Your task to perform on an android device: Open Wikipedia Image 0: 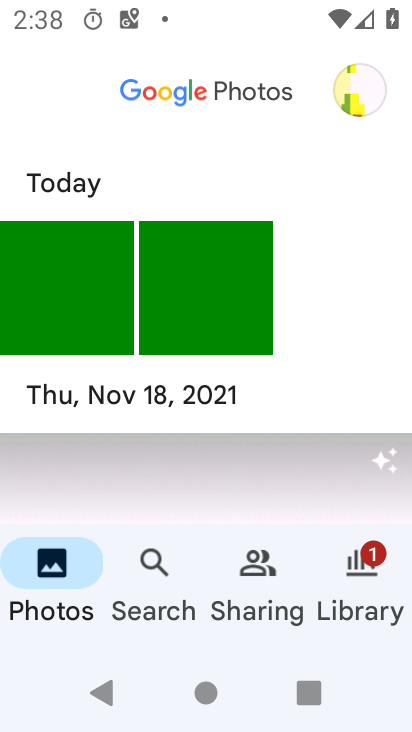
Step 0: press home button
Your task to perform on an android device: Open Wikipedia Image 1: 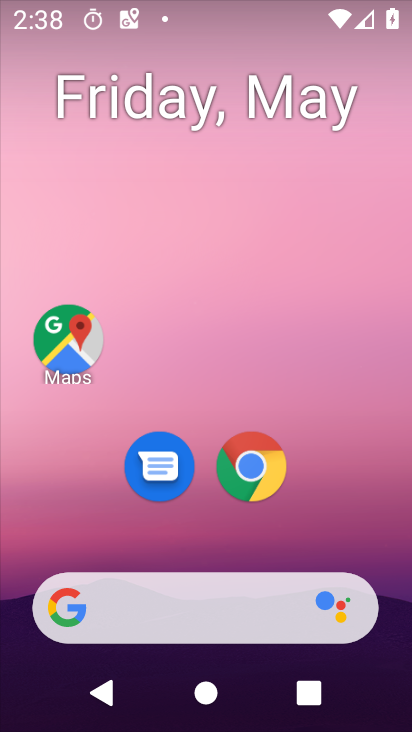
Step 1: drag from (363, 497) to (407, 344)
Your task to perform on an android device: Open Wikipedia Image 2: 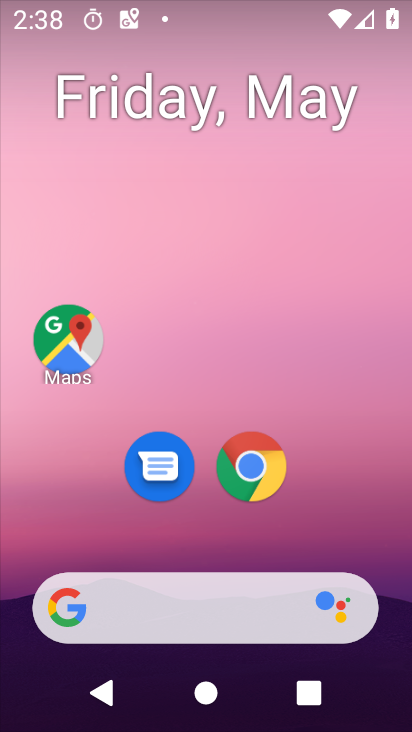
Step 2: drag from (334, 503) to (411, 23)
Your task to perform on an android device: Open Wikipedia Image 3: 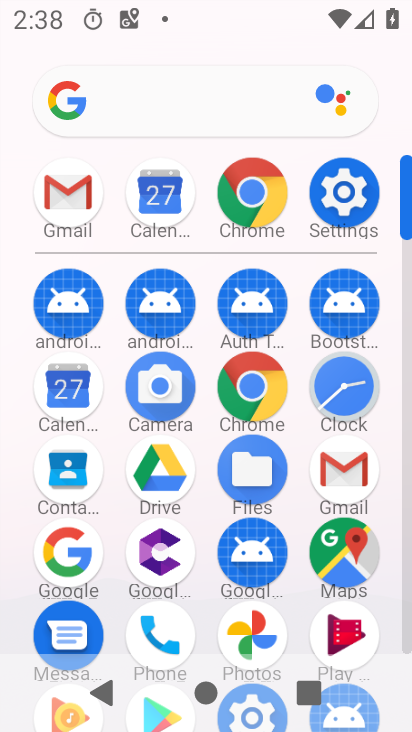
Step 3: click (244, 199)
Your task to perform on an android device: Open Wikipedia Image 4: 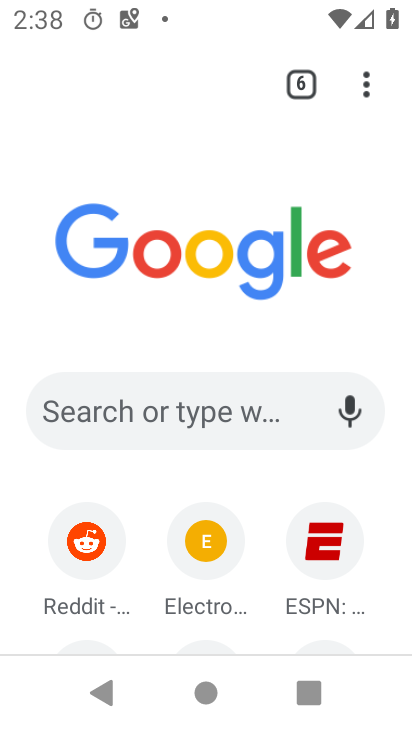
Step 4: drag from (364, 519) to (410, 247)
Your task to perform on an android device: Open Wikipedia Image 5: 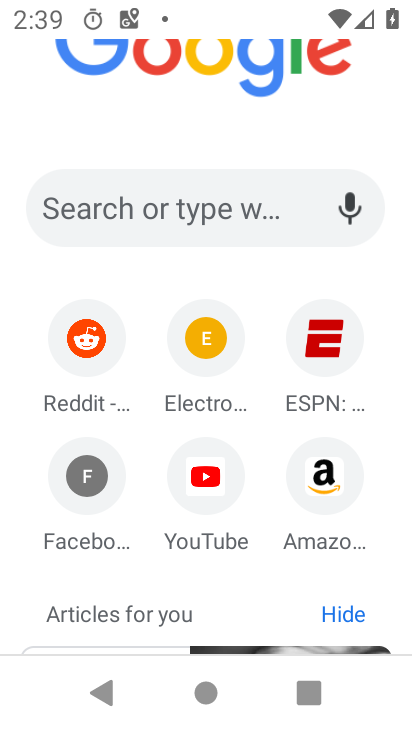
Step 5: drag from (385, 554) to (410, 504)
Your task to perform on an android device: Open Wikipedia Image 6: 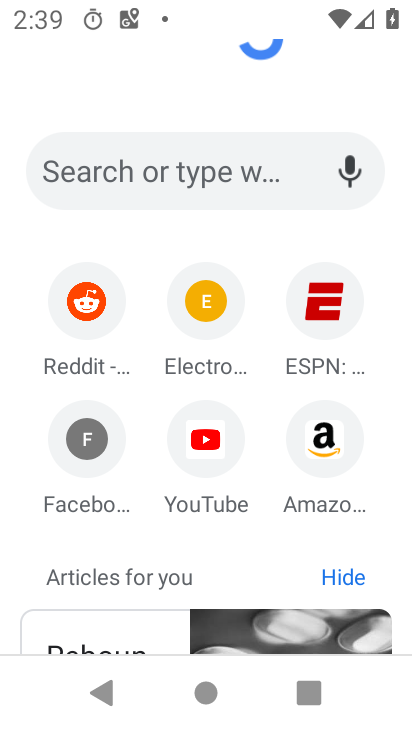
Step 6: drag from (361, 500) to (409, 204)
Your task to perform on an android device: Open Wikipedia Image 7: 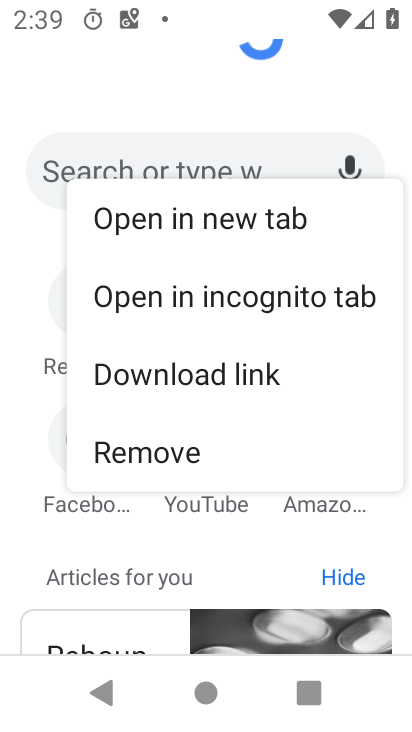
Step 7: click (347, 102)
Your task to perform on an android device: Open Wikipedia Image 8: 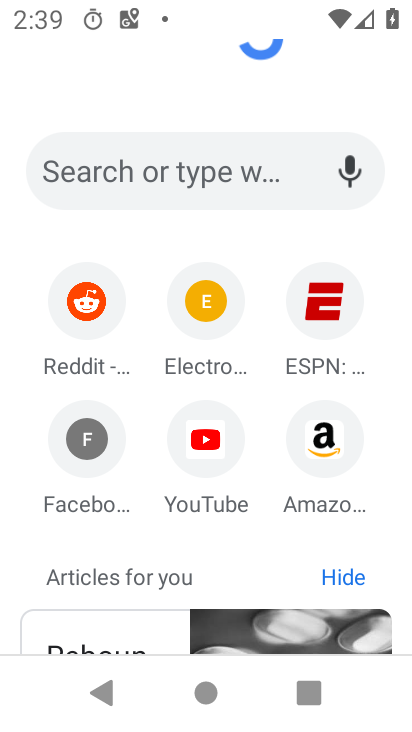
Step 8: click (173, 184)
Your task to perform on an android device: Open Wikipedia Image 9: 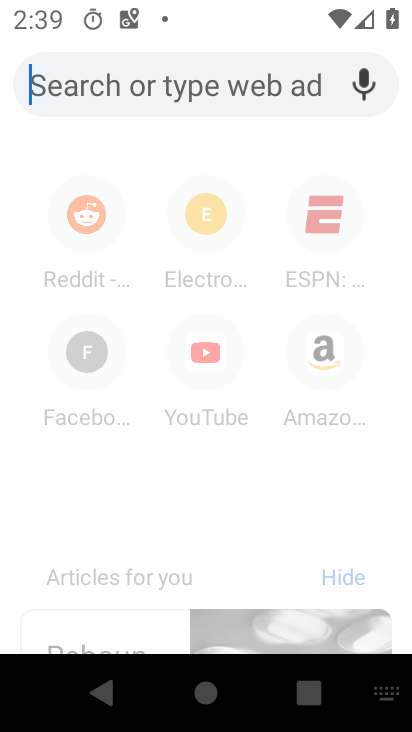
Step 9: type "wikipedia"
Your task to perform on an android device: Open Wikipedia Image 10: 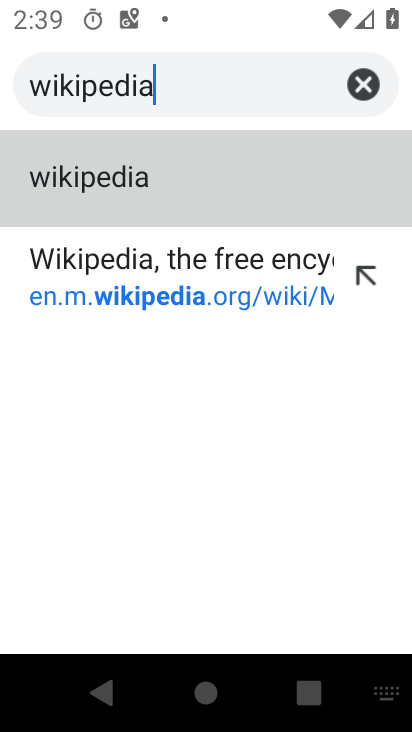
Step 10: click (110, 189)
Your task to perform on an android device: Open Wikipedia Image 11: 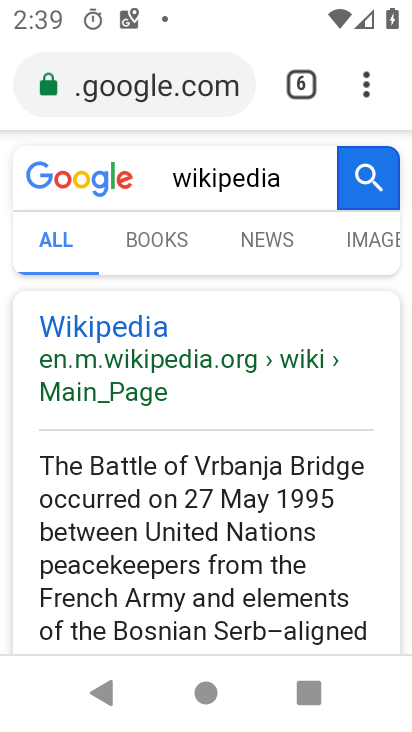
Step 11: click (136, 344)
Your task to perform on an android device: Open Wikipedia Image 12: 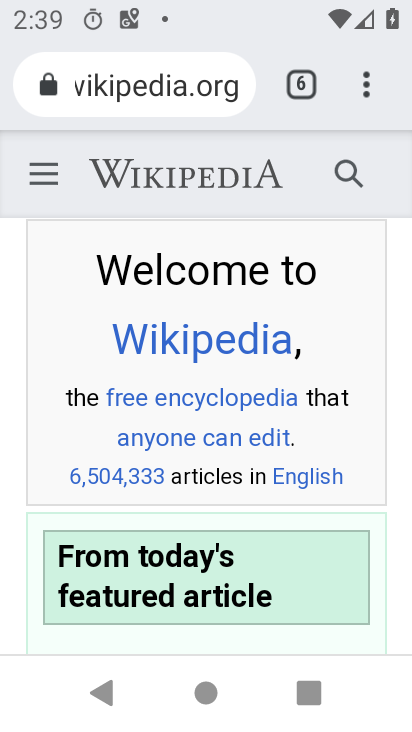
Step 12: task complete